Your task to perform on an android device: toggle translation in the chrome app Image 0: 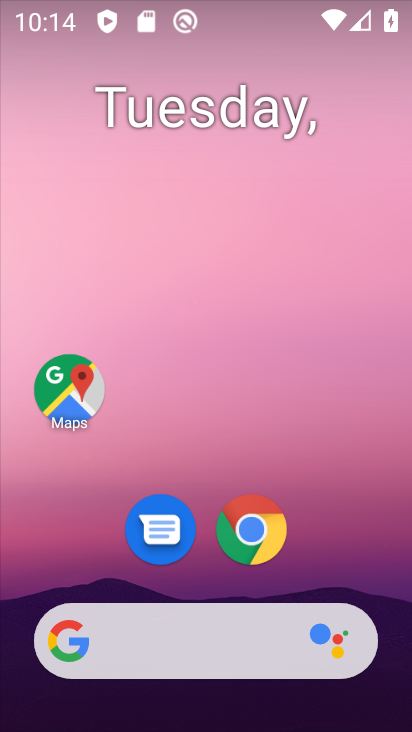
Step 0: click (255, 534)
Your task to perform on an android device: toggle translation in the chrome app Image 1: 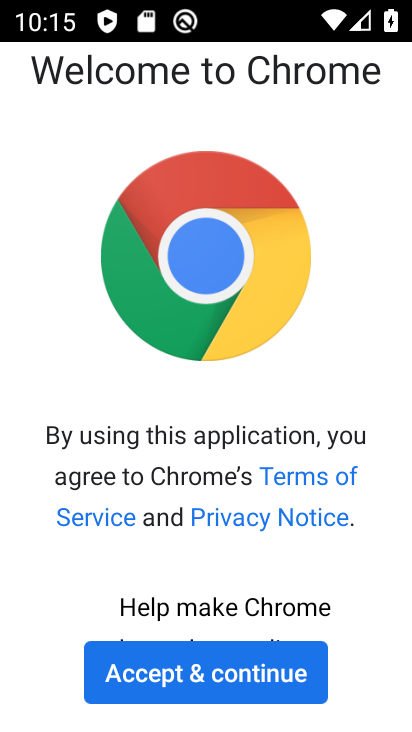
Step 1: click (247, 669)
Your task to perform on an android device: toggle translation in the chrome app Image 2: 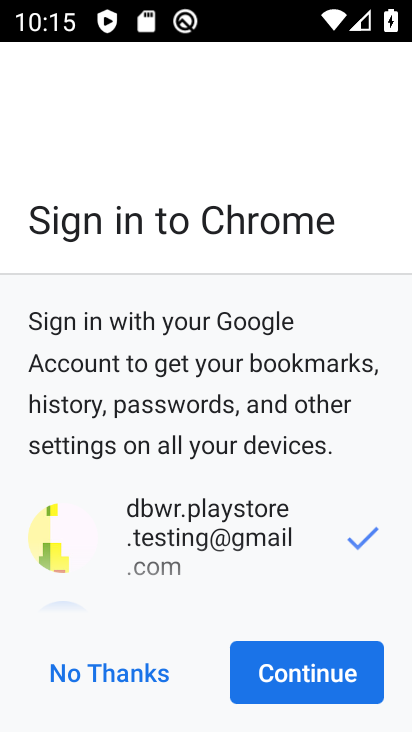
Step 2: click (274, 672)
Your task to perform on an android device: toggle translation in the chrome app Image 3: 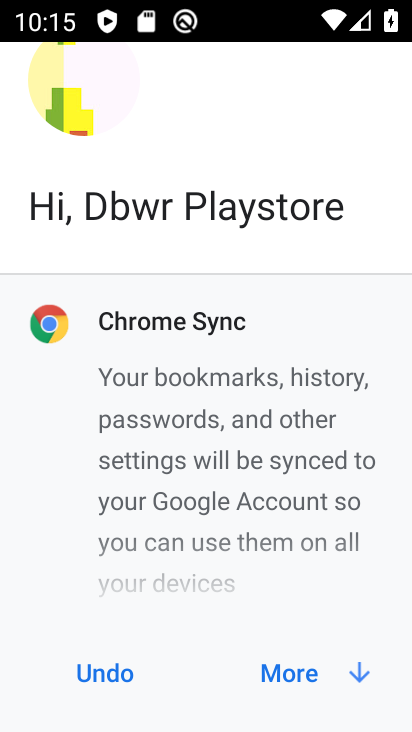
Step 3: click (274, 672)
Your task to perform on an android device: toggle translation in the chrome app Image 4: 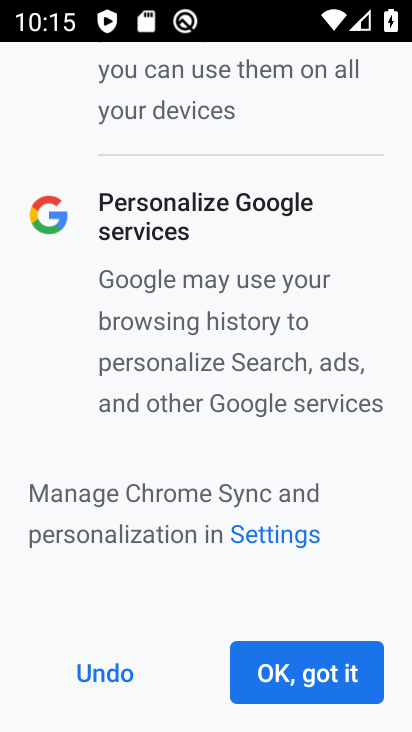
Step 4: click (274, 672)
Your task to perform on an android device: toggle translation in the chrome app Image 5: 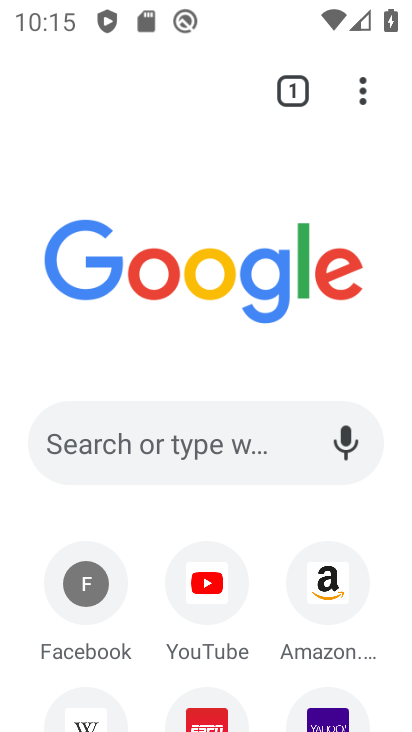
Step 5: click (360, 98)
Your task to perform on an android device: toggle translation in the chrome app Image 6: 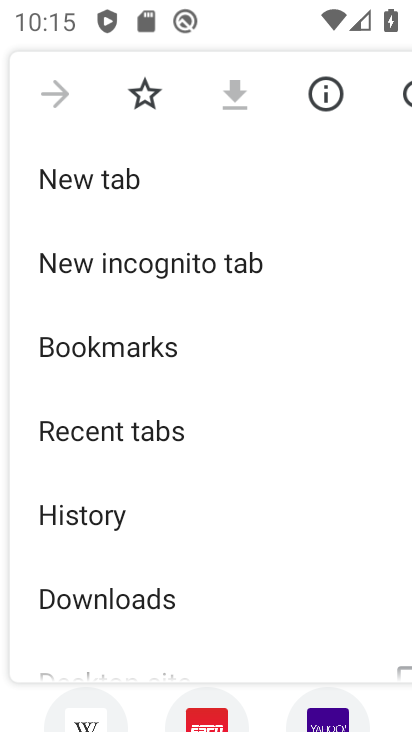
Step 6: drag from (269, 599) to (261, 105)
Your task to perform on an android device: toggle translation in the chrome app Image 7: 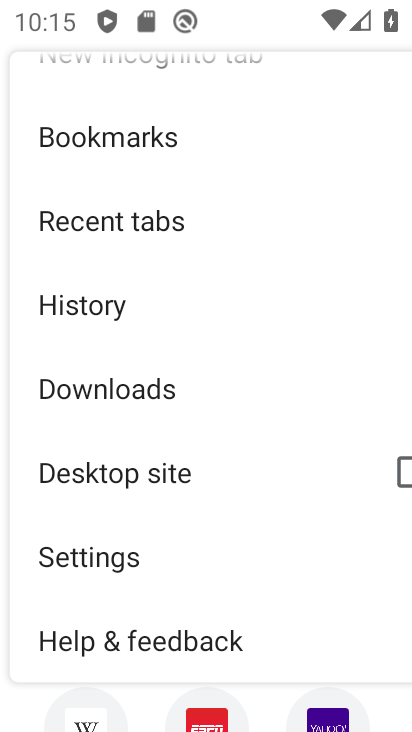
Step 7: click (232, 550)
Your task to perform on an android device: toggle translation in the chrome app Image 8: 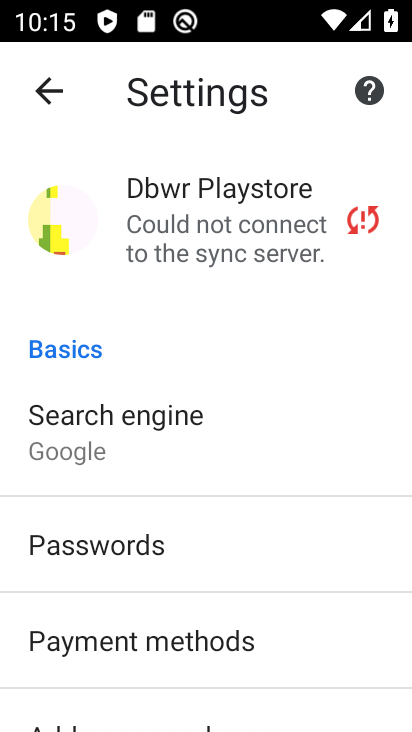
Step 8: drag from (227, 592) to (197, 154)
Your task to perform on an android device: toggle translation in the chrome app Image 9: 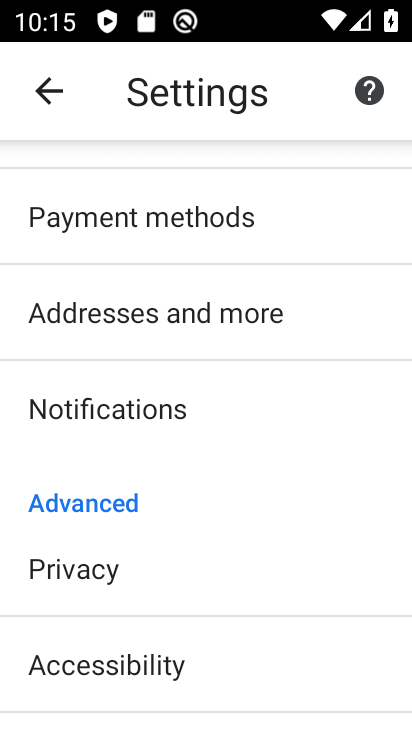
Step 9: drag from (252, 612) to (225, 285)
Your task to perform on an android device: toggle translation in the chrome app Image 10: 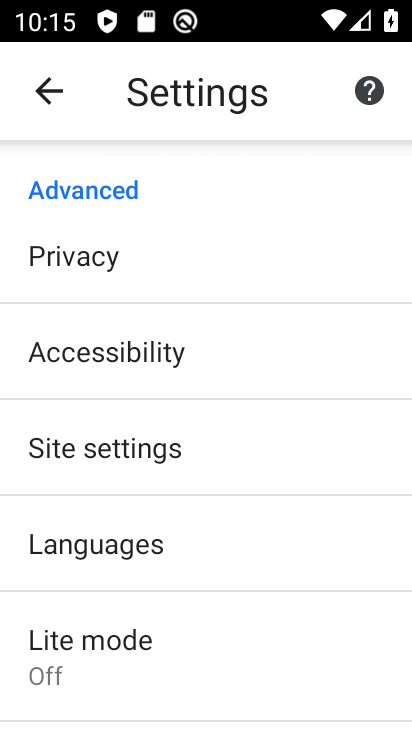
Step 10: click (245, 565)
Your task to perform on an android device: toggle translation in the chrome app Image 11: 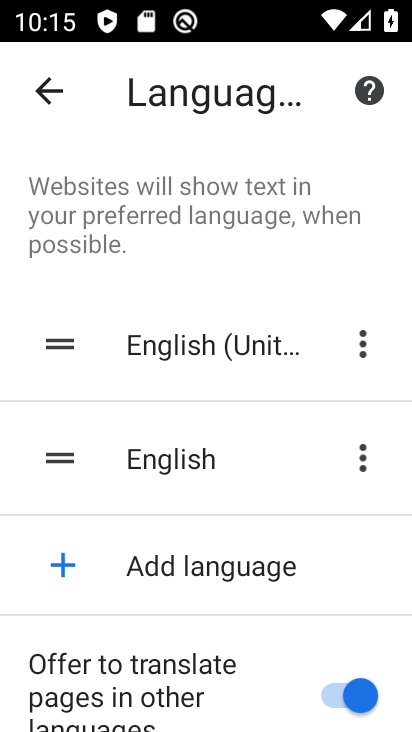
Step 11: drag from (284, 721) to (271, 455)
Your task to perform on an android device: toggle translation in the chrome app Image 12: 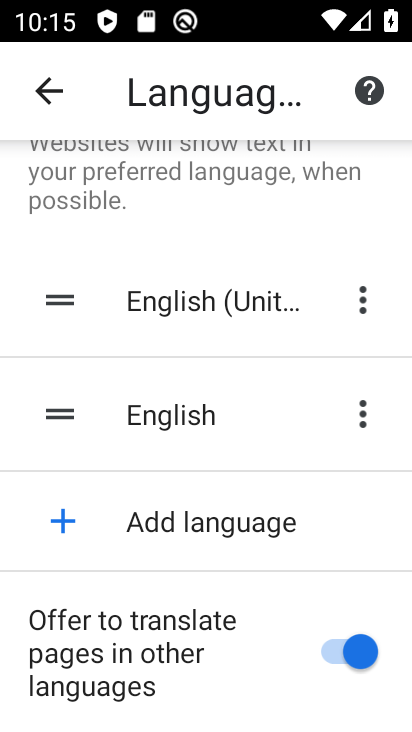
Step 12: click (331, 642)
Your task to perform on an android device: toggle translation in the chrome app Image 13: 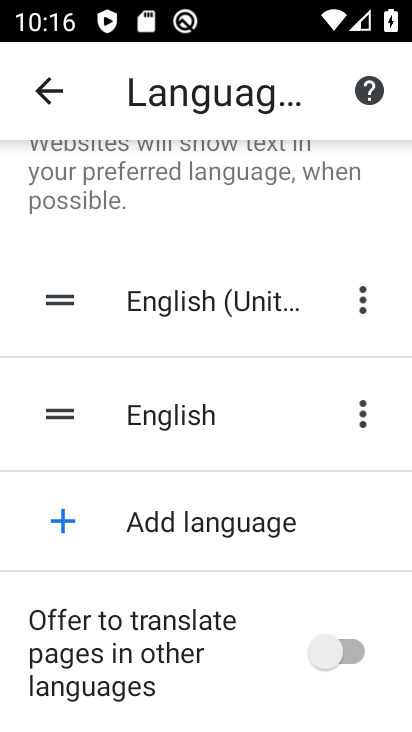
Step 13: task complete